Your task to perform on an android device: see sites visited before in the chrome app Image 0: 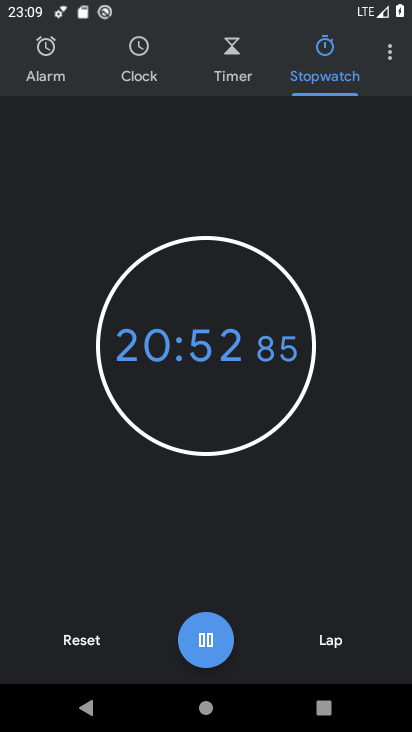
Step 0: click (71, 647)
Your task to perform on an android device: see sites visited before in the chrome app Image 1: 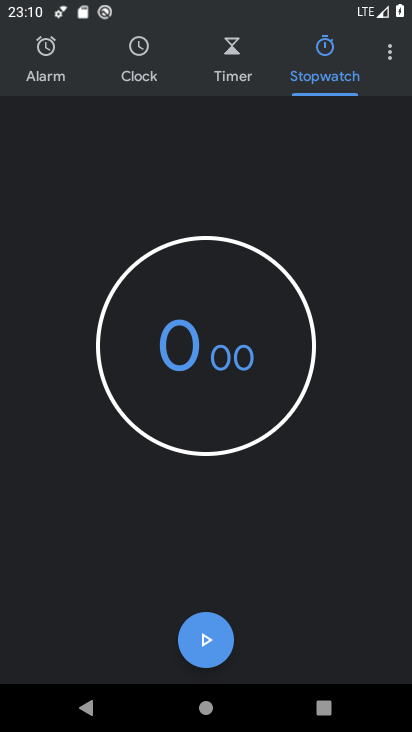
Step 1: drag from (296, 594) to (299, 217)
Your task to perform on an android device: see sites visited before in the chrome app Image 2: 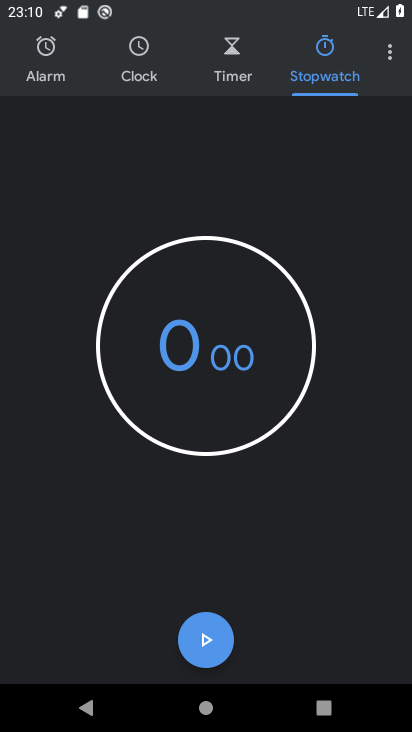
Step 2: drag from (272, 517) to (289, 267)
Your task to perform on an android device: see sites visited before in the chrome app Image 3: 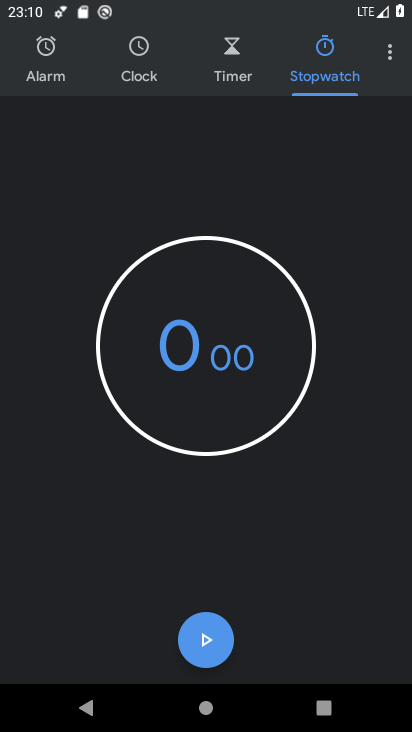
Step 3: drag from (140, 190) to (100, 485)
Your task to perform on an android device: see sites visited before in the chrome app Image 4: 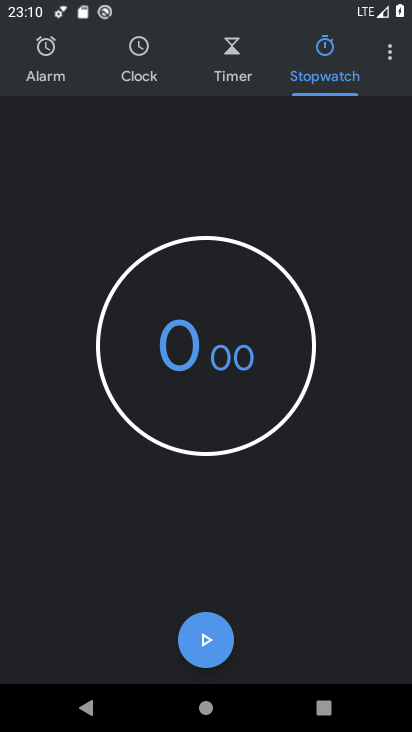
Step 4: drag from (316, 479) to (380, 232)
Your task to perform on an android device: see sites visited before in the chrome app Image 5: 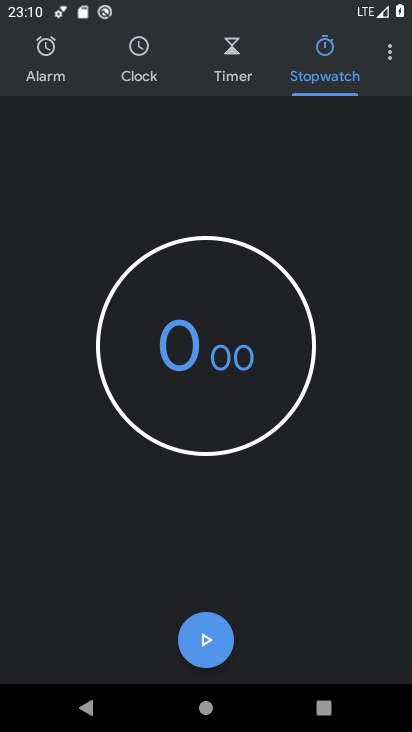
Step 5: drag from (95, 240) to (132, 519)
Your task to perform on an android device: see sites visited before in the chrome app Image 6: 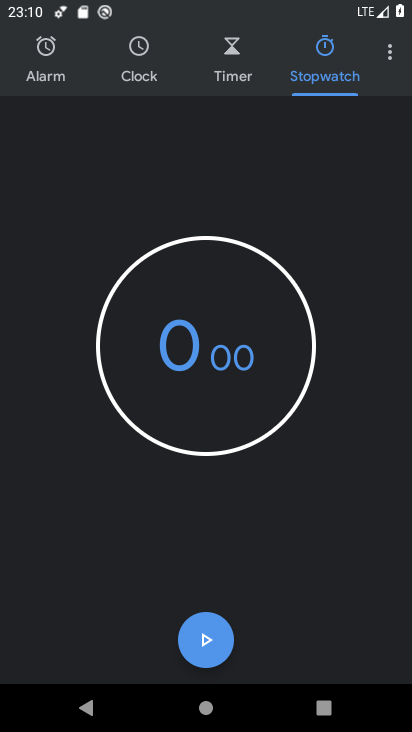
Step 6: click (390, 49)
Your task to perform on an android device: see sites visited before in the chrome app Image 7: 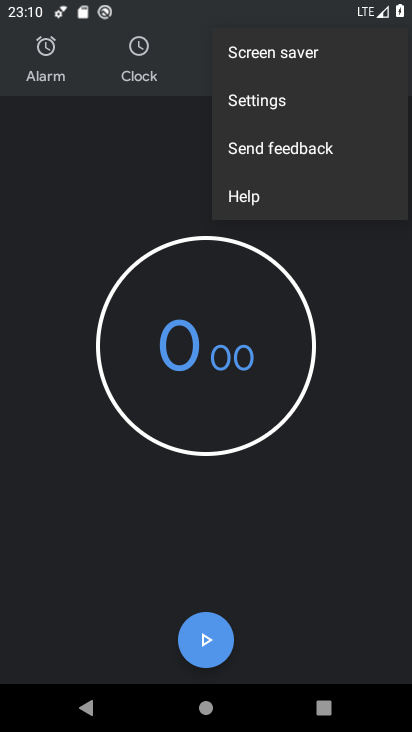
Step 7: click (350, 387)
Your task to perform on an android device: see sites visited before in the chrome app Image 8: 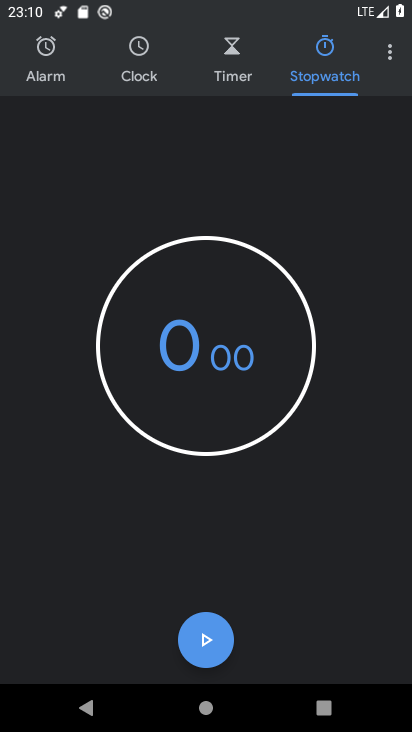
Step 8: press home button
Your task to perform on an android device: see sites visited before in the chrome app Image 9: 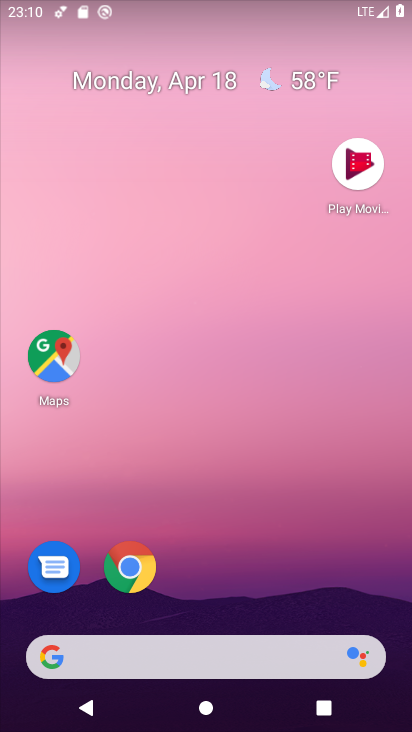
Step 9: drag from (219, 491) to (226, 78)
Your task to perform on an android device: see sites visited before in the chrome app Image 10: 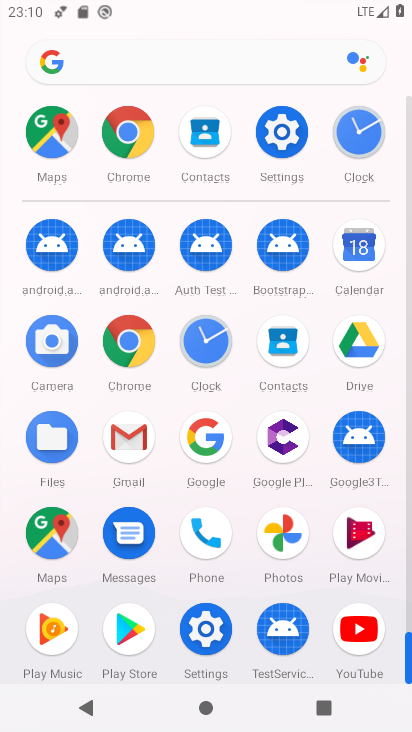
Step 10: click (124, 339)
Your task to perform on an android device: see sites visited before in the chrome app Image 11: 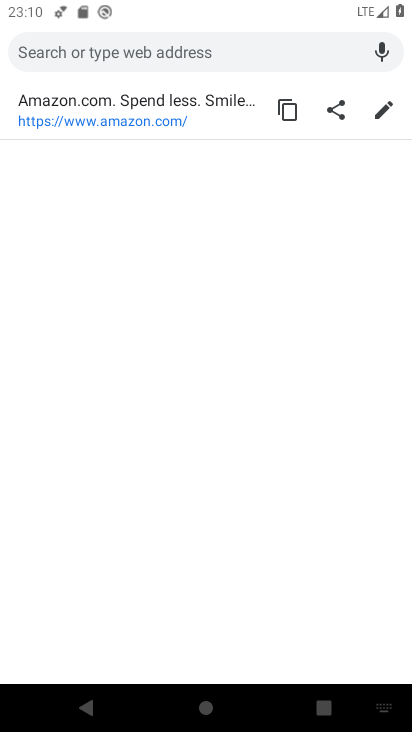
Step 11: press back button
Your task to perform on an android device: see sites visited before in the chrome app Image 12: 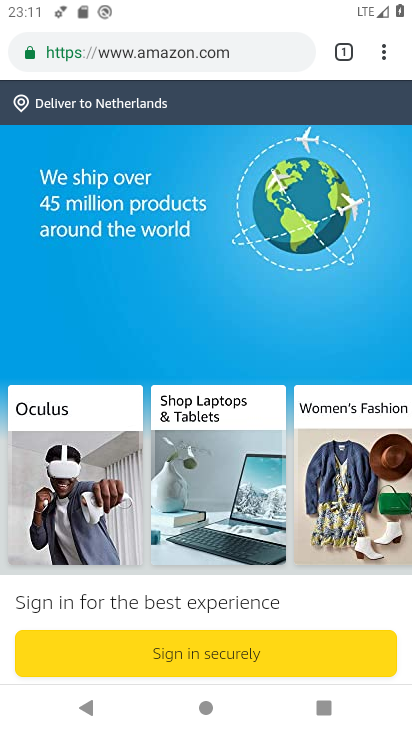
Step 12: click (385, 57)
Your task to perform on an android device: see sites visited before in the chrome app Image 13: 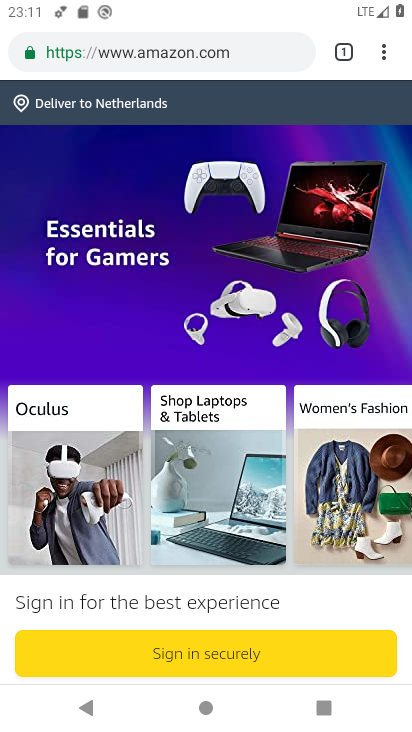
Step 13: click (382, 45)
Your task to perform on an android device: see sites visited before in the chrome app Image 14: 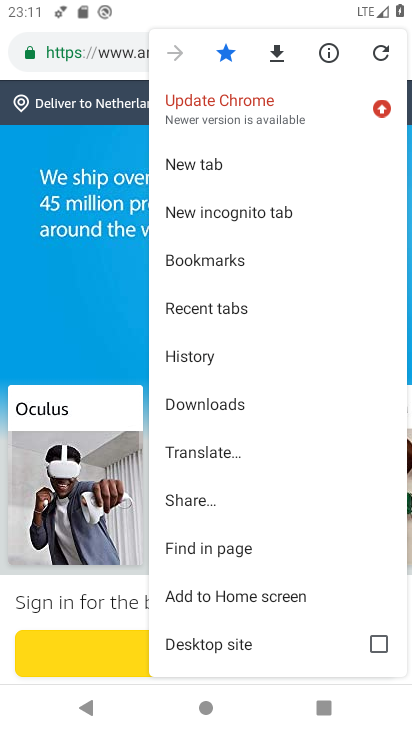
Step 14: drag from (251, 576) to (280, 177)
Your task to perform on an android device: see sites visited before in the chrome app Image 15: 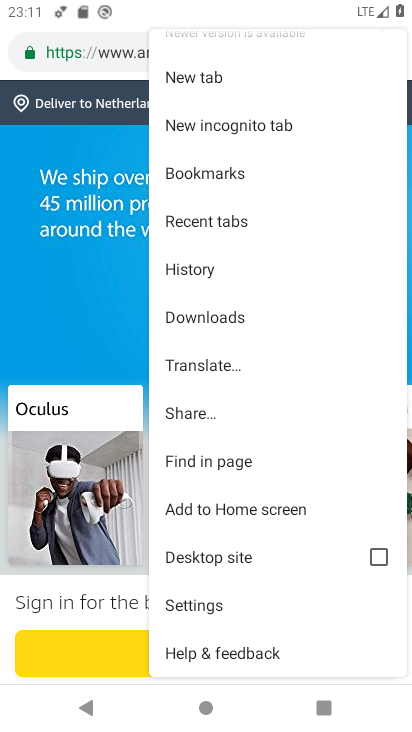
Step 15: click (256, 180)
Your task to perform on an android device: see sites visited before in the chrome app Image 16: 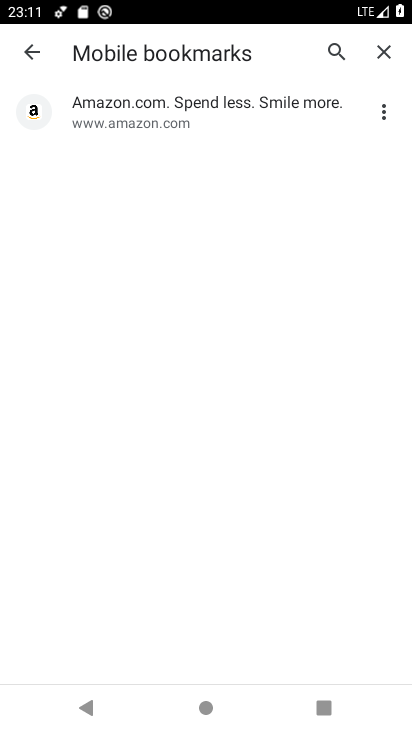
Step 16: task complete